Your task to perform on an android device: choose inbox layout in the gmail app Image 0: 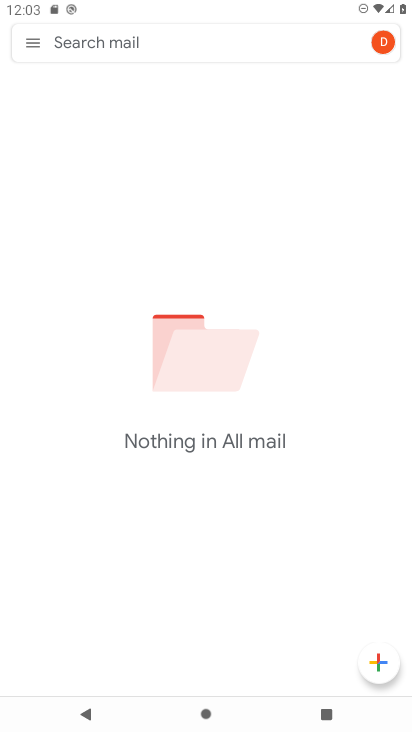
Step 0: click (30, 42)
Your task to perform on an android device: choose inbox layout in the gmail app Image 1: 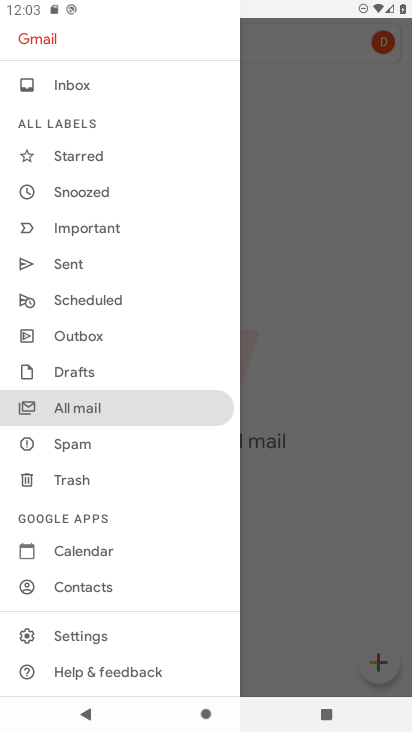
Step 1: click (91, 631)
Your task to perform on an android device: choose inbox layout in the gmail app Image 2: 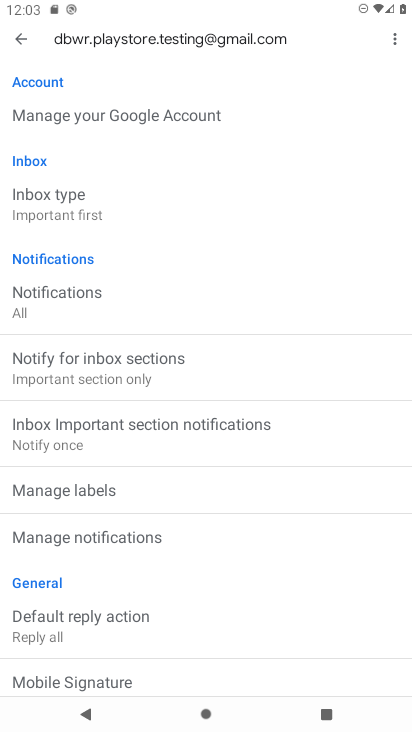
Step 2: click (62, 197)
Your task to perform on an android device: choose inbox layout in the gmail app Image 3: 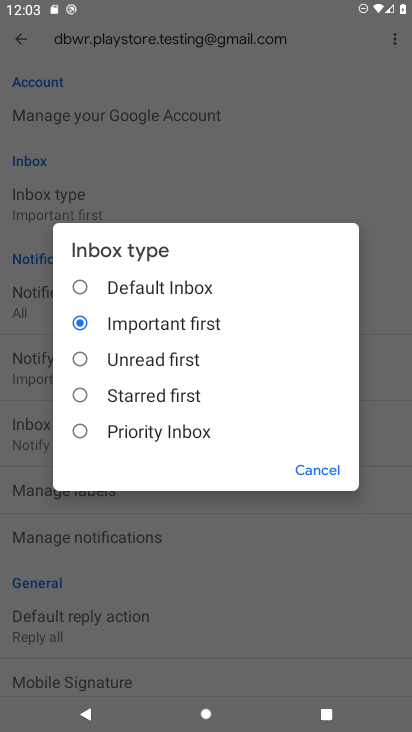
Step 3: click (316, 464)
Your task to perform on an android device: choose inbox layout in the gmail app Image 4: 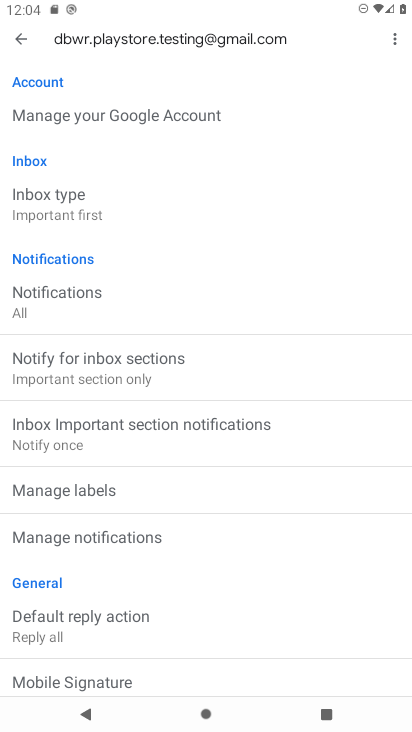
Step 4: click (213, 485)
Your task to perform on an android device: choose inbox layout in the gmail app Image 5: 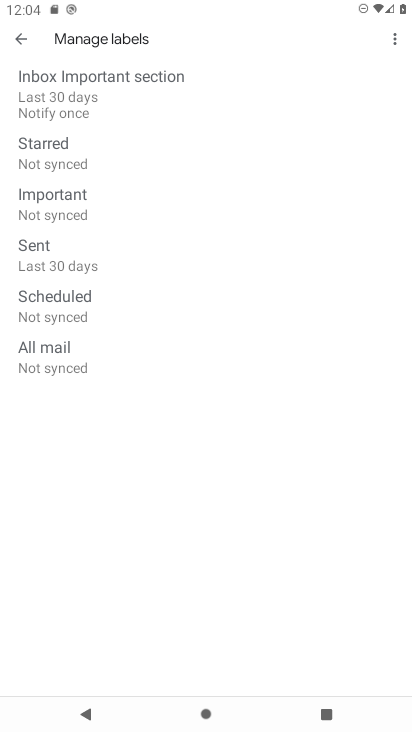
Step 5: task complete